Your task to perform on an android device: check storage Image 0: 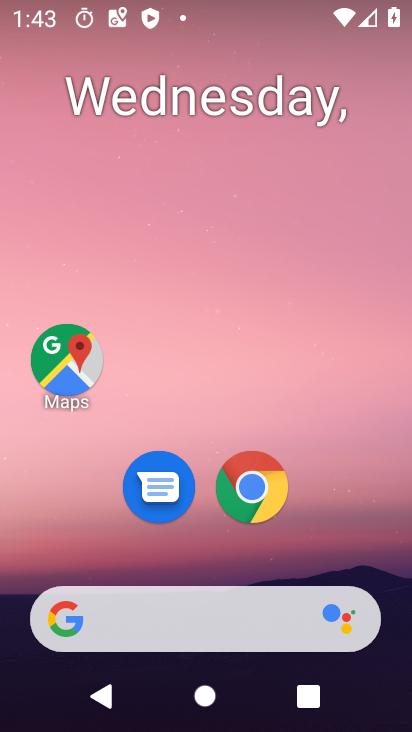
Step 0: drag from (156, 580) to (250, 3)
Your task to perform on an android device: check storage Image 1: 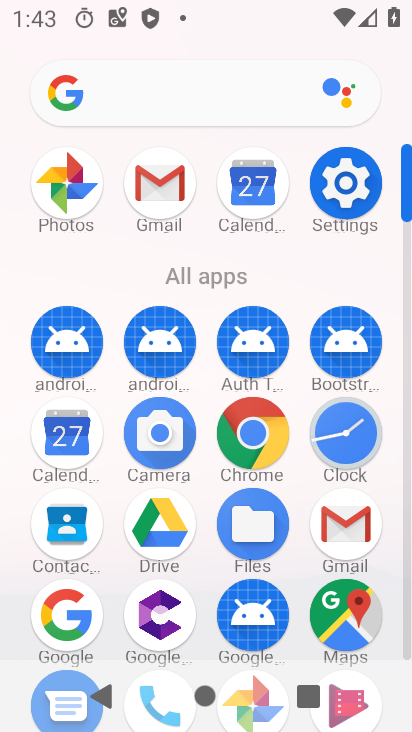
Step 1: click (347, 176)
Your task to perform on an android device: check storage Image 2: 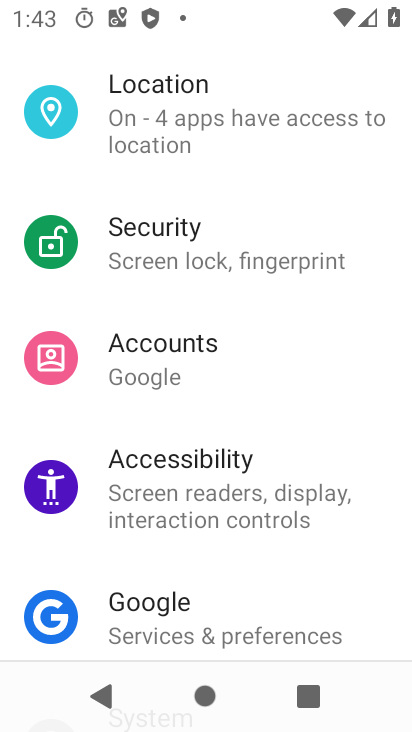
Step 2: drag from (317, 180) to (251, 612)
Your task to perform on an android device: check storage Image 3: 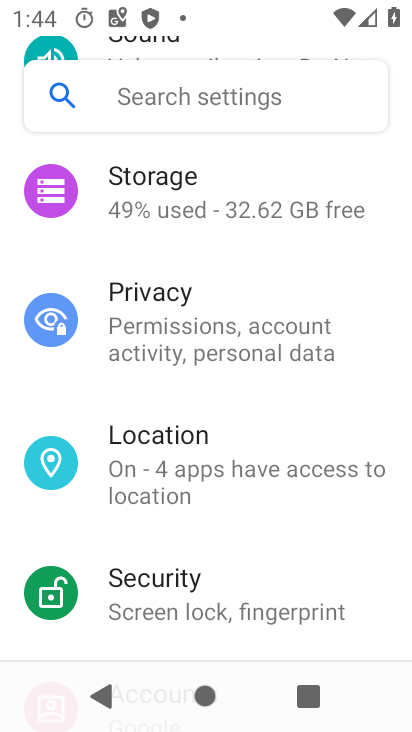
Step 3: click (177, 191)
Your task to perform on an android device: check storage Image 4: 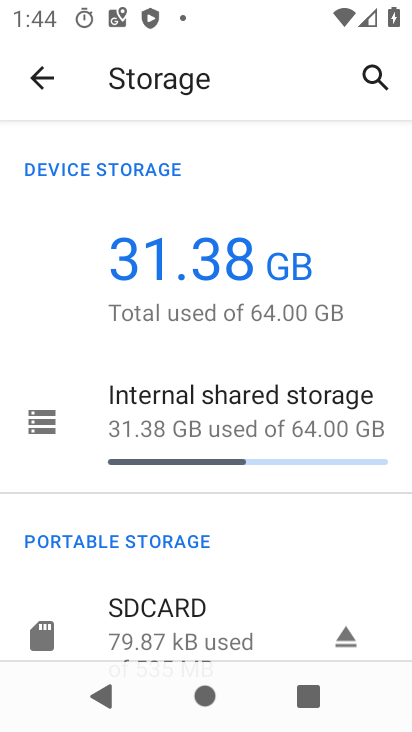
Step 4: task complete